Your task to perform on an android device: Search for top rated sushi restaurant Image 0: 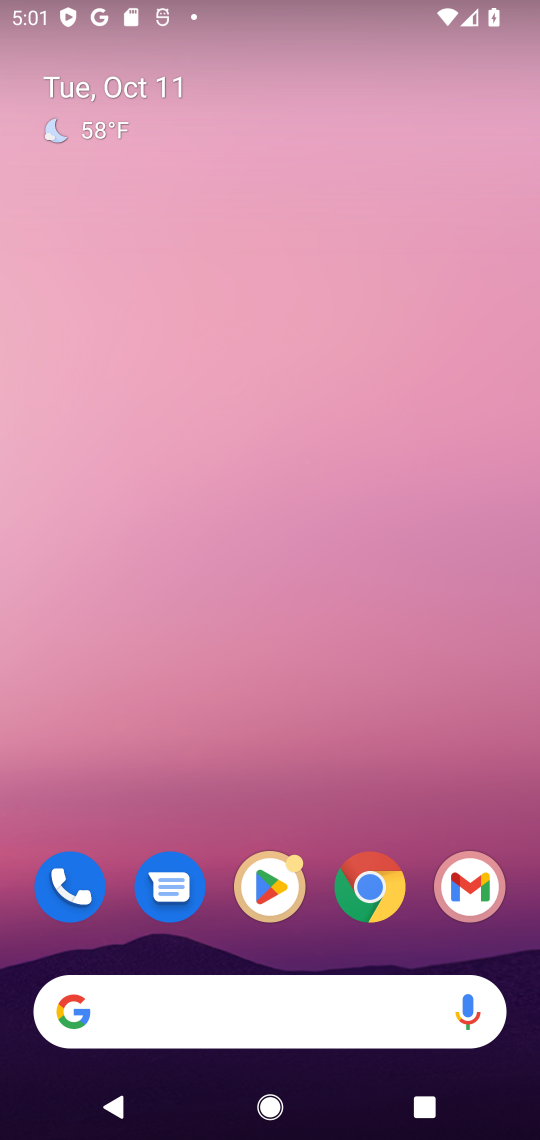
Step 0: click (384, 1002)
Your task to perform on an android device: Search for top rated sushi restaurant Image 1: 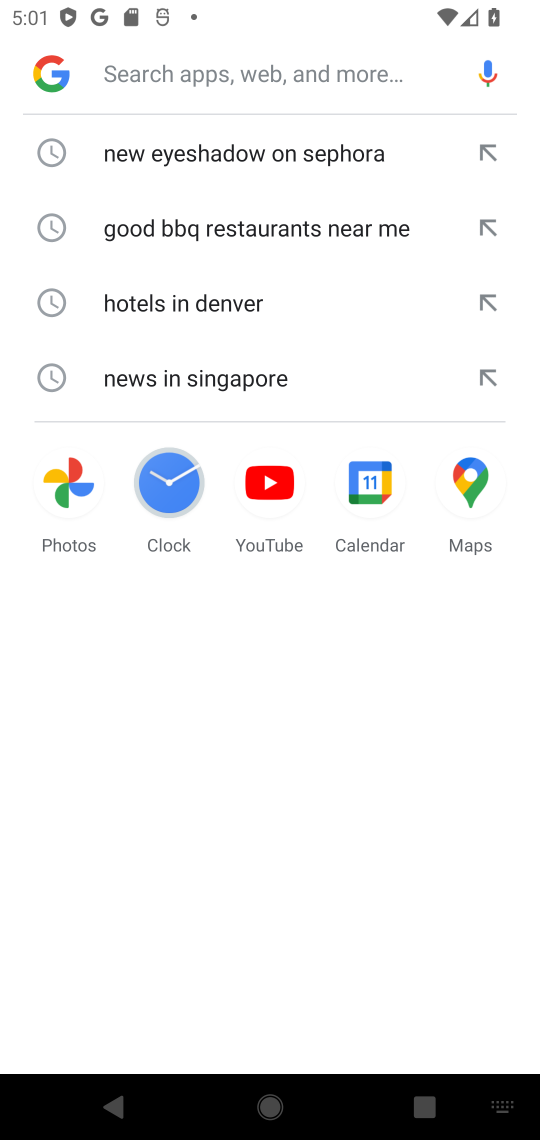
Step 1: type "top rated sushi restaurant"
Your task to perform on an android device: Search for top rated sushi restaurant Image 2: 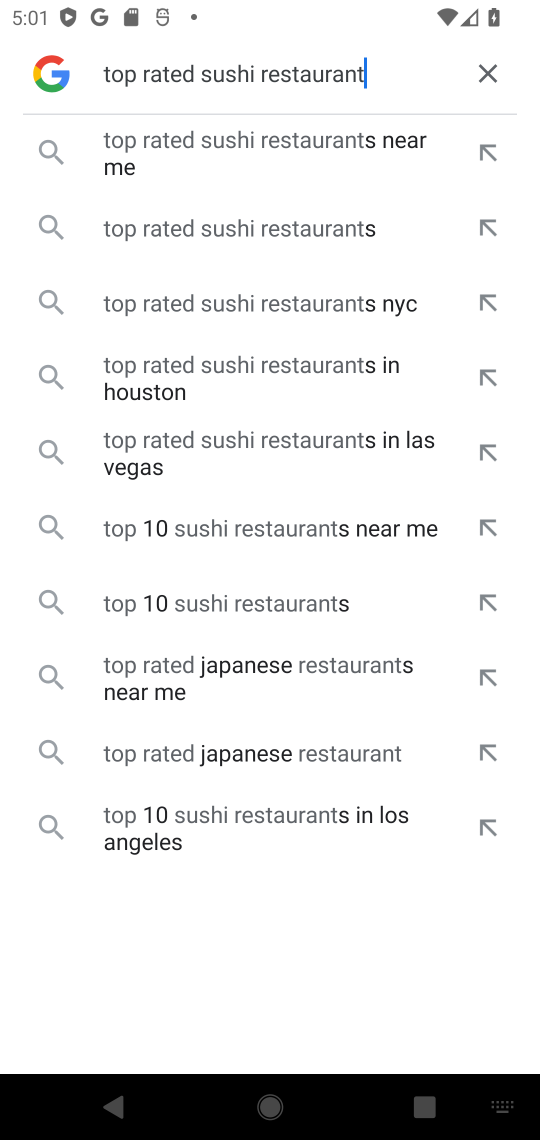
Step 2: press enter
Your task to perform on an android device: Search for top rated sushi restaurant Image 3: 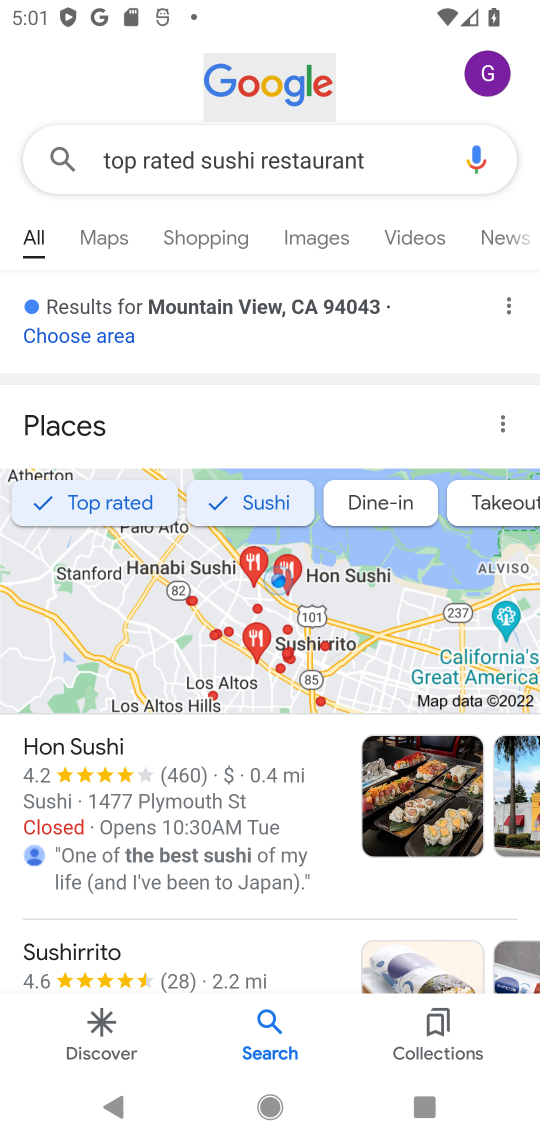
Step 3: drag from (303, 900) to (320, 588)
Your task to perform on an android device: Search for top rated sushi restaurant Image 4: 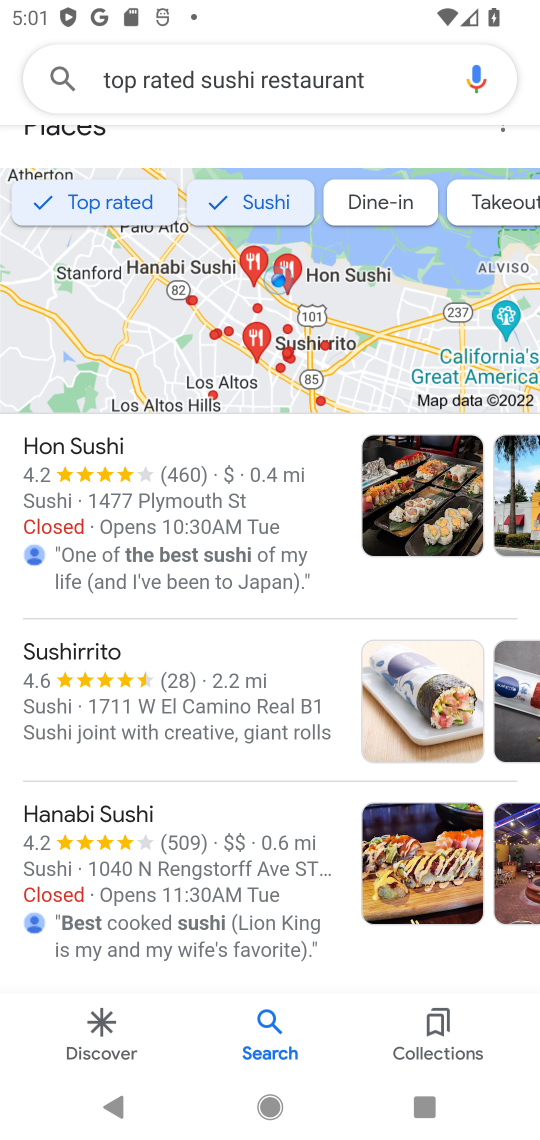
Step 4: drag from (326, 919) to (307, 622)
Your task to perform on an android device: Search for top rated sushi restaurant Image 5: 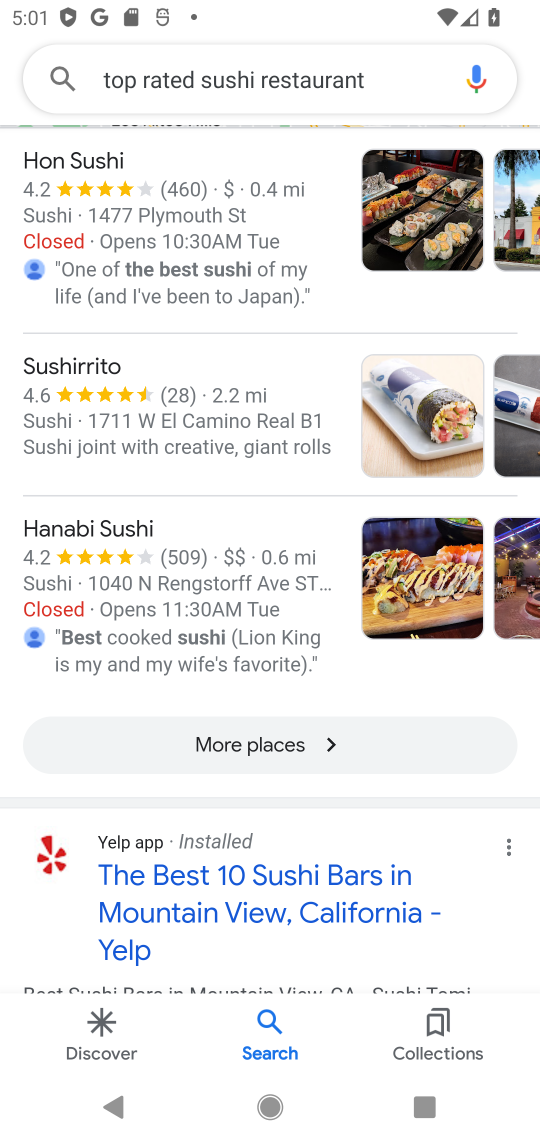
Step 5: click (261, 737)
Your task to perform on an android device: Search for top rated sushi restaurant Image 6: 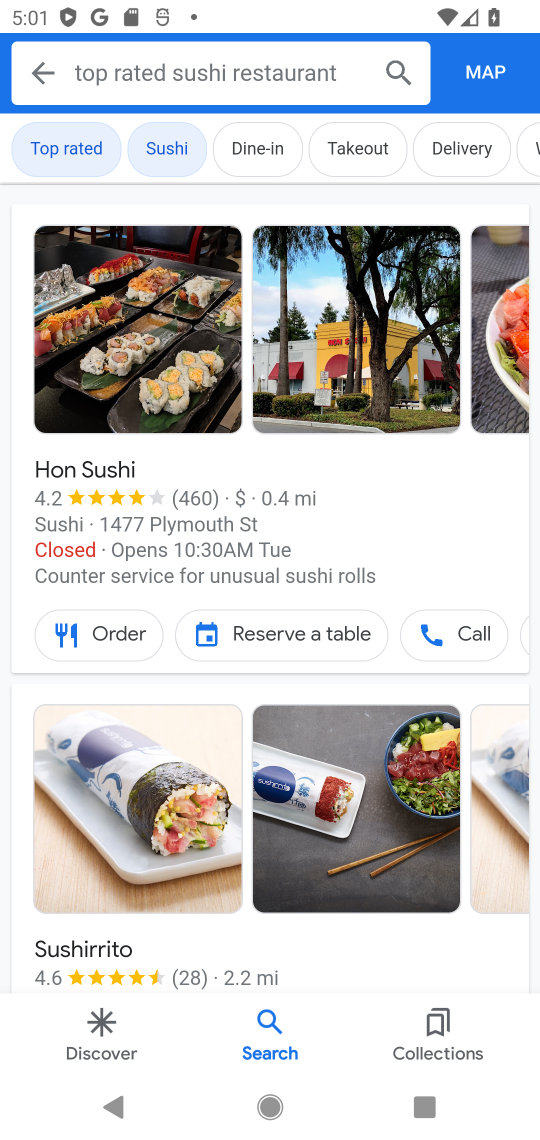
Step 6: task complete